Your task to perform on an android device: When is my next appointment? Image 0: 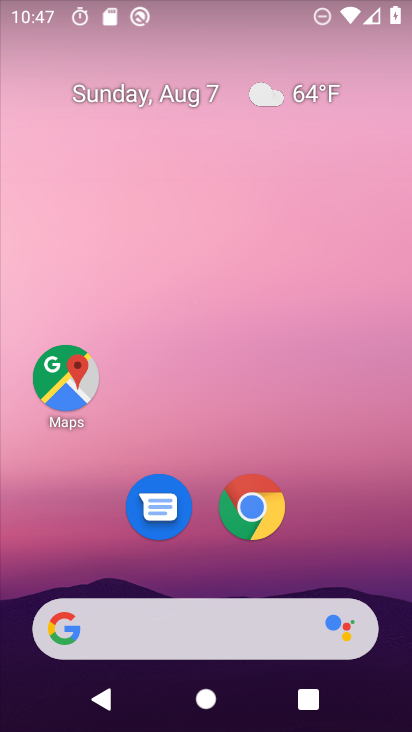
Step 0: drag from (405, 534) to (401, 43)
Your task to perform on an android device: When is my next appointment? Image 1: 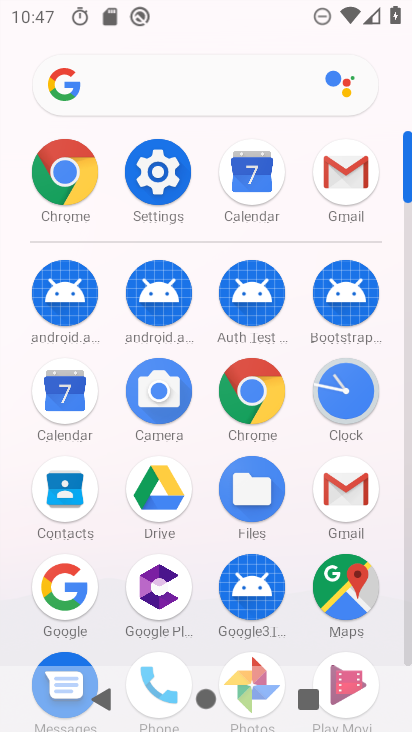
Step 1: click (56, 419)
Your task to perform on an android device: When is my next appointment? Image 2: 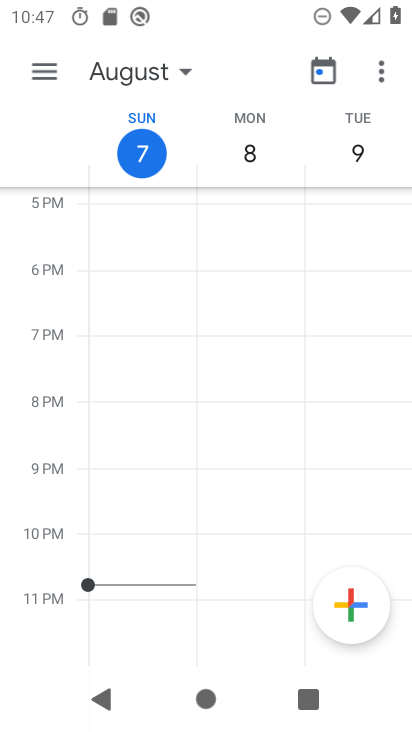
Step 2: task complete